Your task to perform on an android device: turn on bluetooth scan Image 0: 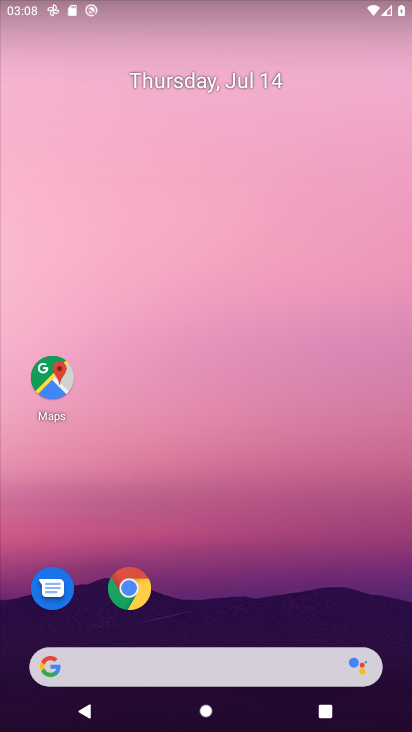
Step 0: drag from (273, 607) to (225, 231)
Your task to perform on an android device: turn on bluetooth scan Image 1: 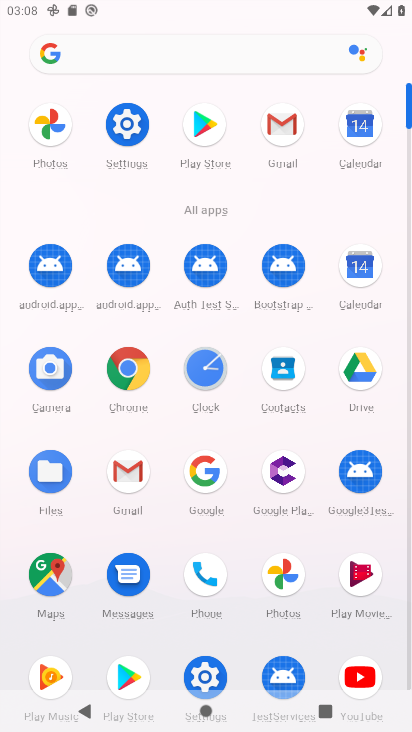
Step 1: click (134, 135)
Your task to perform on an android device: turn on bluetooth scan Image 2: 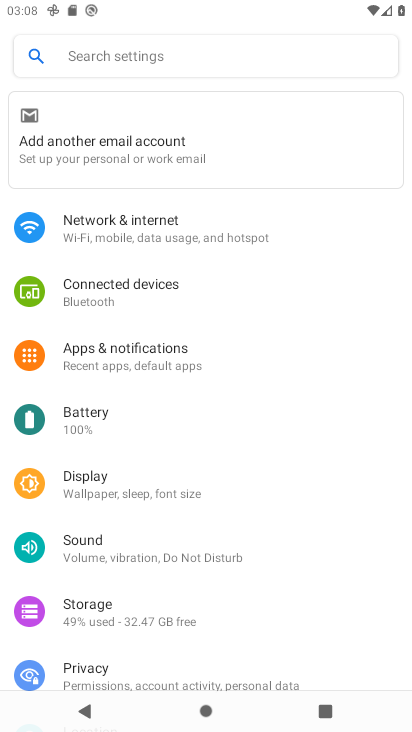
Step 2: drag from (224, 633) to (182, 264)
Your task to perform on an android device: turn on bluetooth scan Image 3: 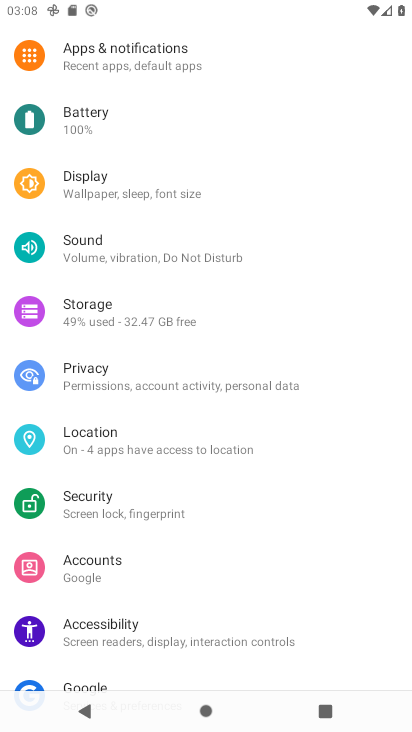
Step 3: click (174, 442)
Your task to perform on an android device: turn on bluetooth scan Image 4: 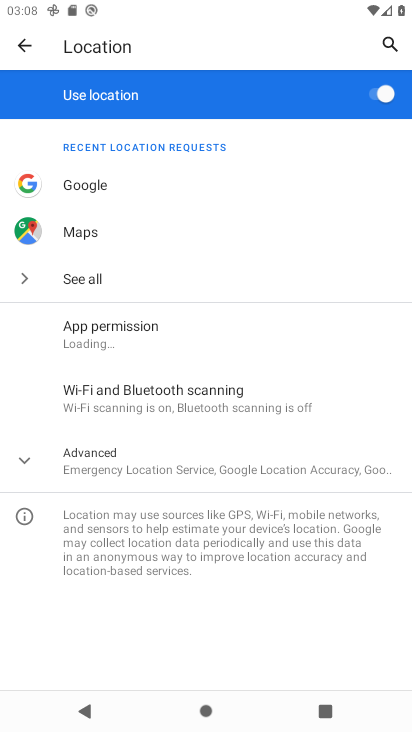
Step 4: click (217, 396)
Your task to perform on an android device: turn on bluetooth scan Image 5: 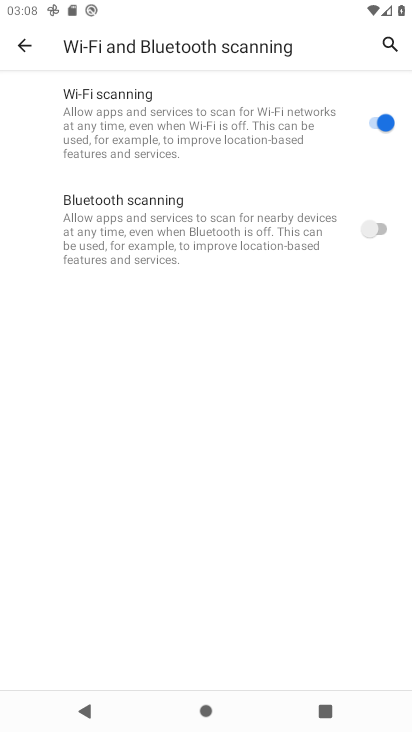
Step 5: click (356, 260)
Your task to perform on an android device: turn on bluetooth scan Image 6: 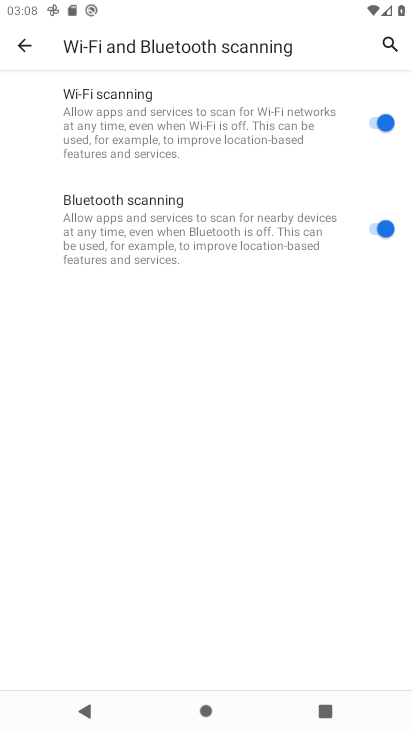
Step 6: task complete